Your task to perform on an android device: Search for sushi restaurants on Maps Image 0: 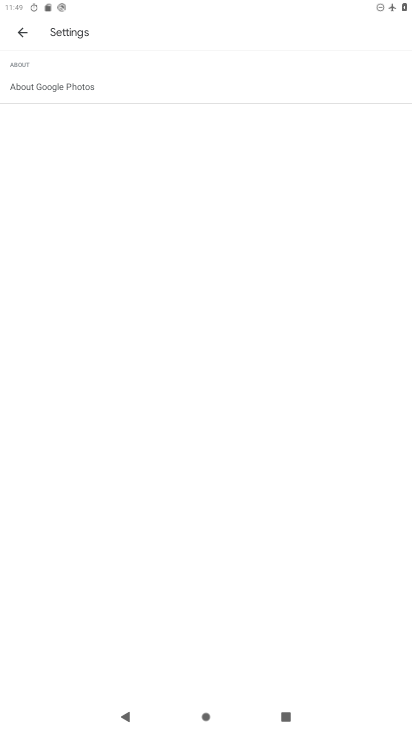
Step 0: press home button
Your task to perform on an android device: Search for sushi restaurants on Maps Image 1: 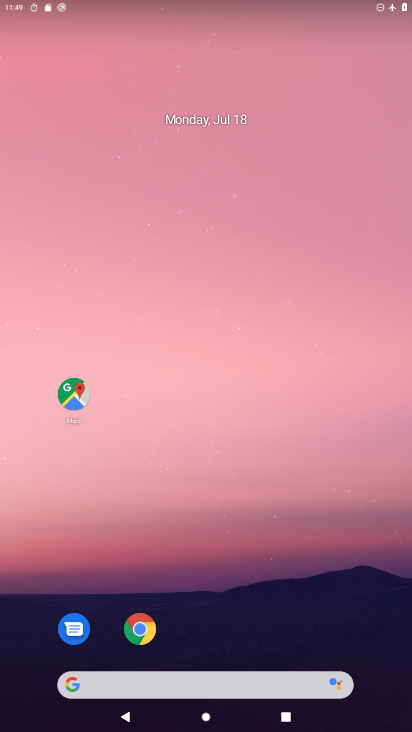
Step 1: drag from (266, 580) to (281, 67)
Your task to perform on an android device: Search for sushi restaurants on Maps Image 2: 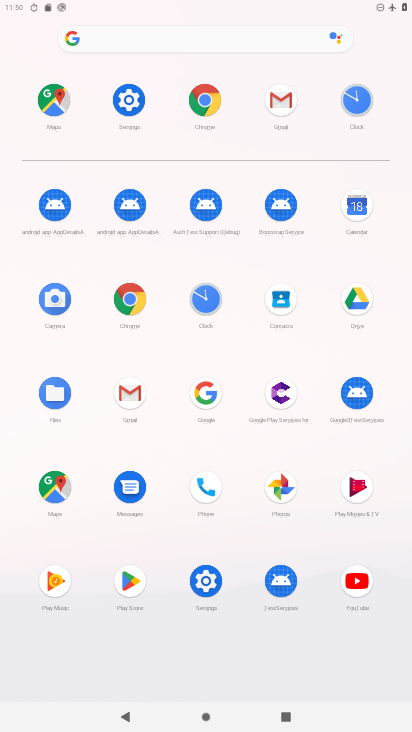
Step 2: click (53, 496)
Your task to perform on an android device: Search for sushi restaurants on Maps Image 3: 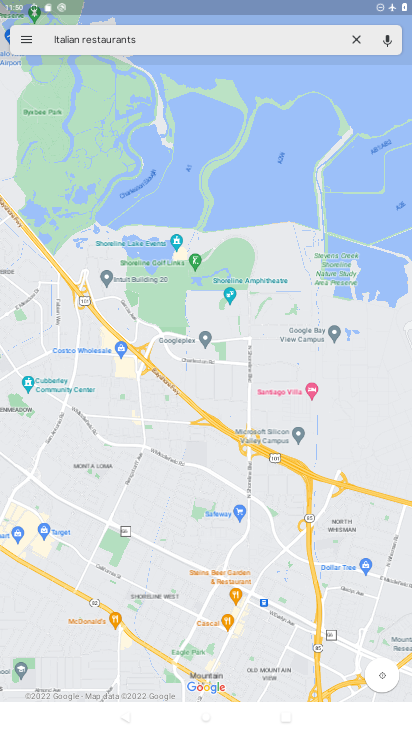
Step 3: click (358, 43)
Your task to perform on an android device: Search for sushi restaurants on Maps Image 4: 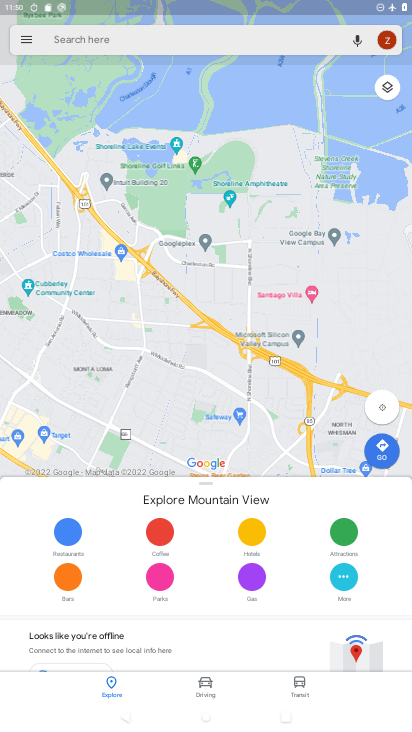
Step 4: click (274, 45)
Your task to perform on an android device: Search for sushi restaurants on Maps Image 5: 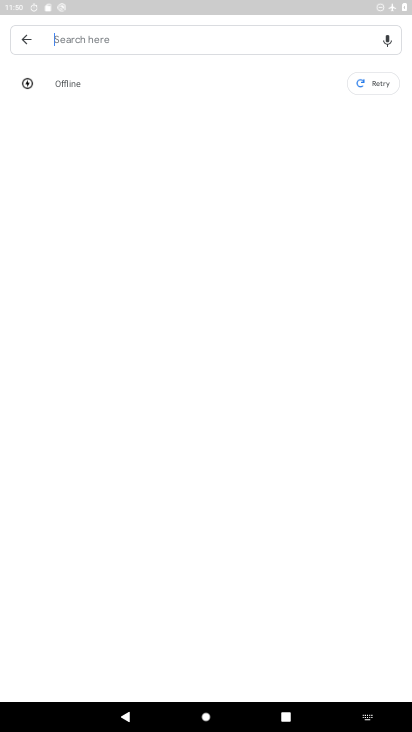
Step 5: type "sushi restaurants"
Your task to perform on an android device: Search for sushi restaurants on Maps Image 6: 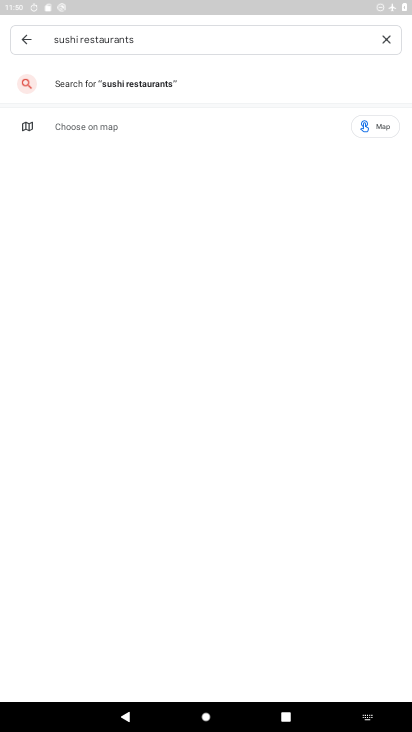
Step 6: click (148, 92)
Your task to perform on an android device: Search for sushi restaurants on Maps Image 7: 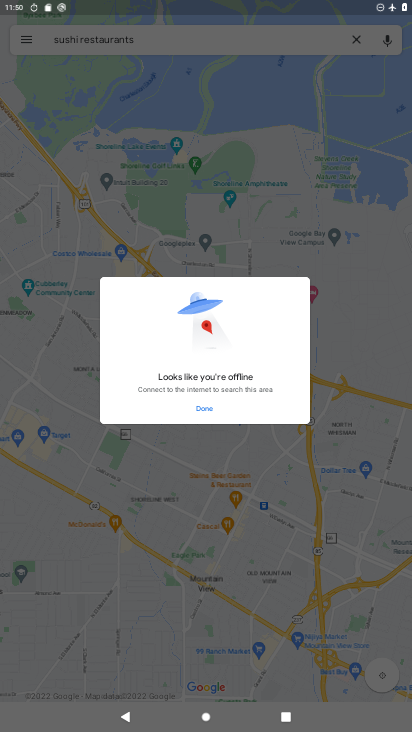
Step 7: task complete